Your task to perform on an android device: open app "Messages" Image 0: 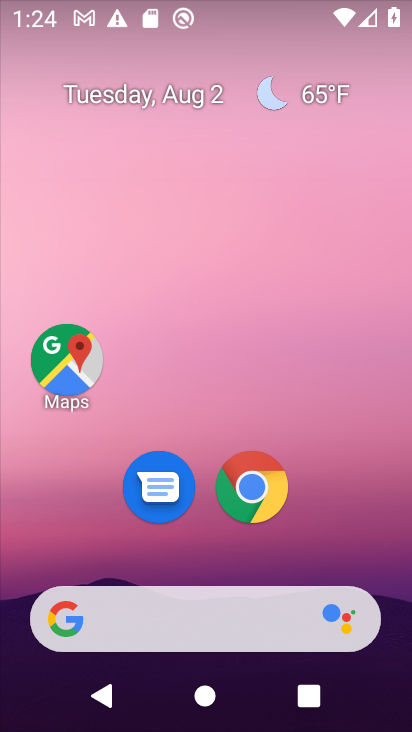
Step 0: drag from (237, 618) to (247, 80)
Your task to perform on an android device: open app "Messages" Image 1: 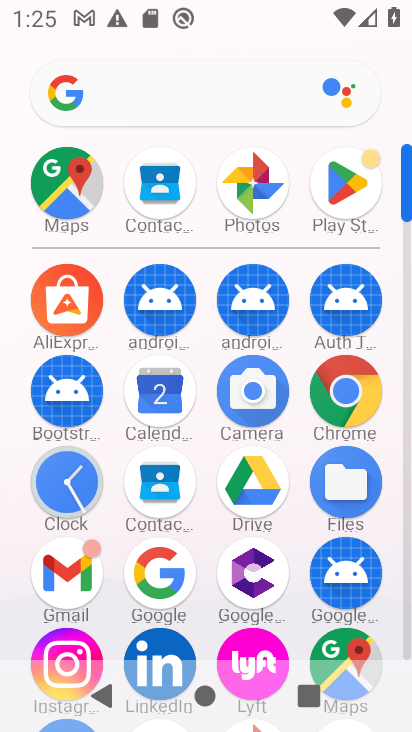
Step 1: drag from (163, 525) to (190, 273)
Your task to perform on an android device: open app "Messages" Image 2: 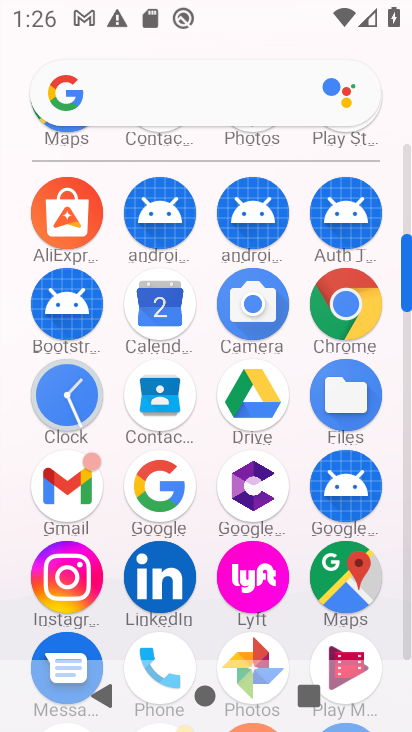
Step 2: drag from (224, 487) to (246, 234)
Your task to perform on an android device: open app "Messages" Image 3: 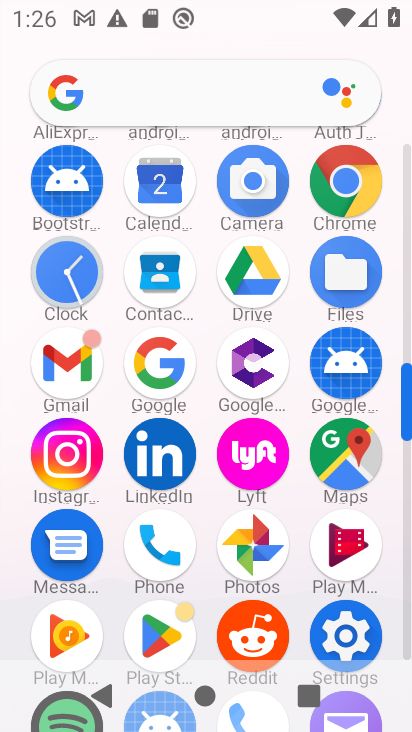
Step 3: click (45, 568)
Your task to perform on an android device: open app "Messages" Image 4: 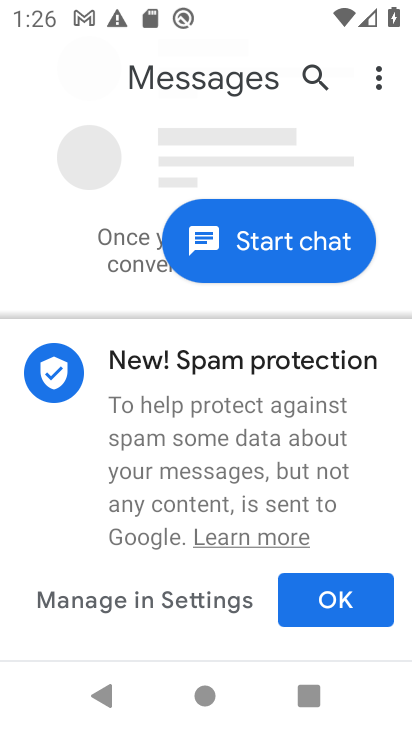
Step 4: task complete